Your task to perform on an android device: show emergency info Image 0: 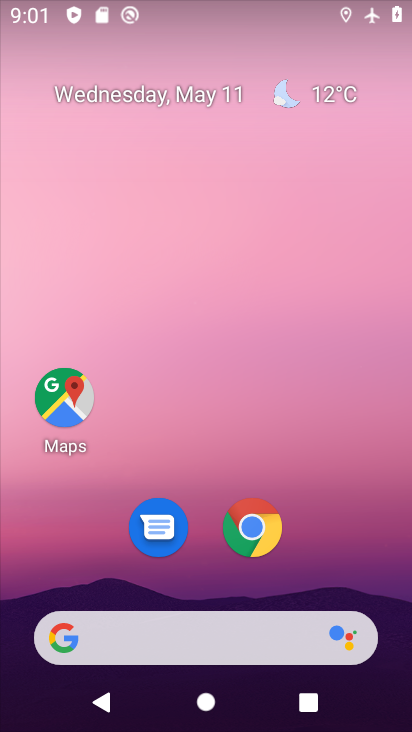
Step 0: drag from (365, 555) to (382, 117)
Your task to perform on an android device: show emergency info Image 1: 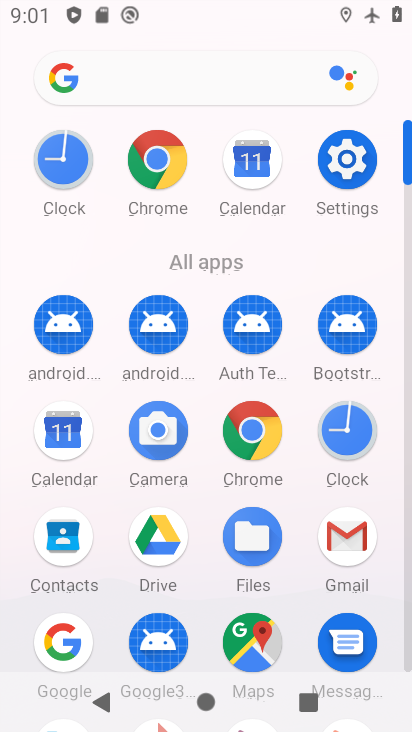
Step 1: click (364, 149)
Your task to perform on an android device: show emergency info Image 2: 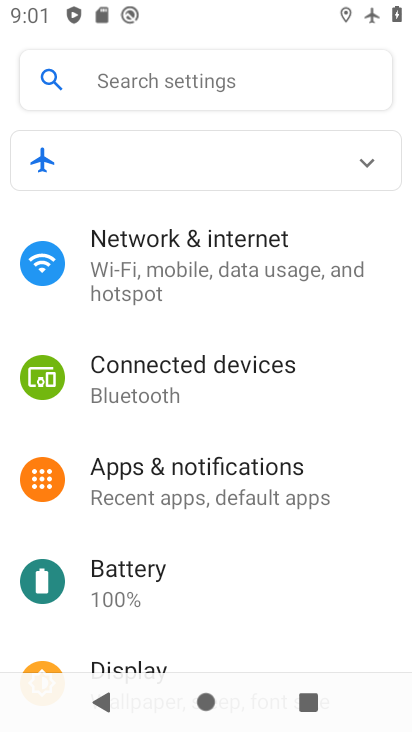
Step 2: drag from (245, 551) to (364, 139)
Your task to perform on an android device: show emergency info Image 3: 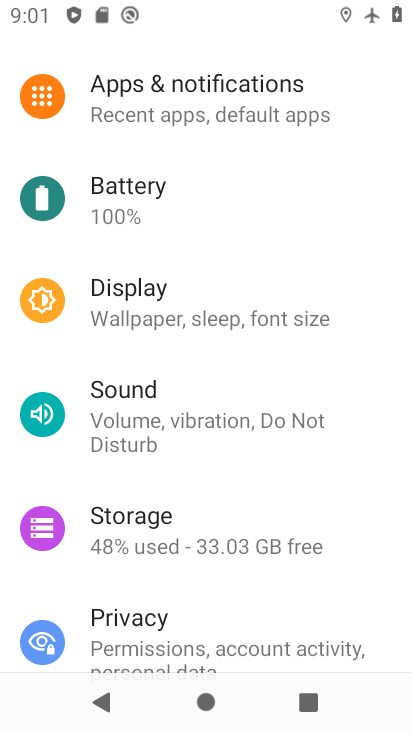
Step 3: drag from (236, 577) to (306, 179)
Your task to perform on an android device: show emergency info Image 4: 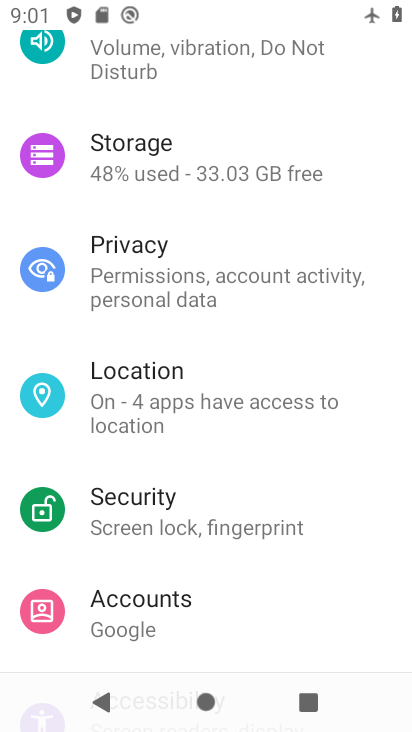
Step 4: drag from (182, 567) to (338, 265)
Your task to perform on an android device: show emergency info Image 5: 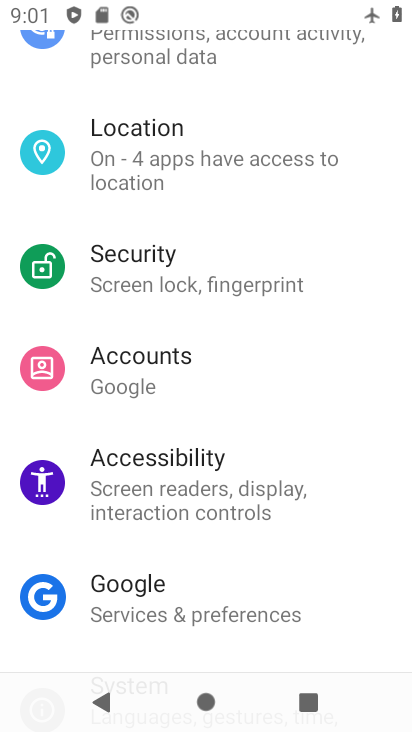
Step 5: drag from (217, 583) to (317, 306)
Your task to perform on an android device: show emergency info Image 6: 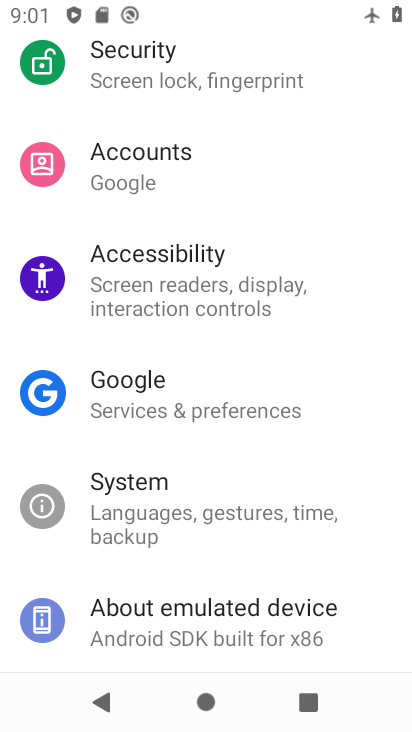
Step 6: click (208, 615)
Your task to perform on an android device: show emergency info Image 7: 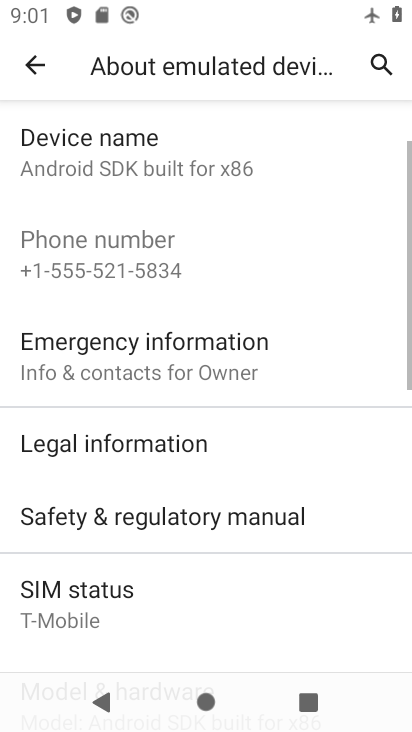
Step 7: drag from (208, 615) to (268, 359)
Your task to perform on an android device: show emergency info Image 8: 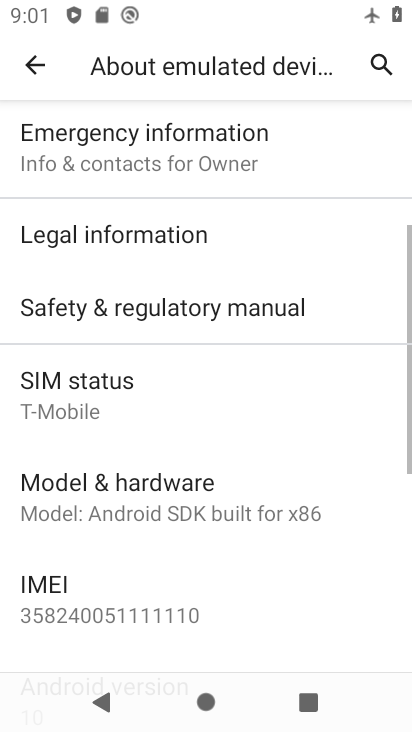
Step 8: click (247, 127)
Your task to perform on an android device: show emergency info Image 9: 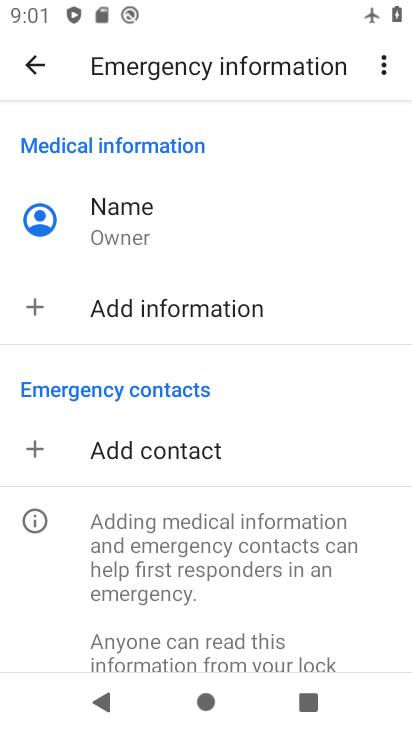
Step 9: task complete